Your task to perform on an android device: What is the news today? Image 0: 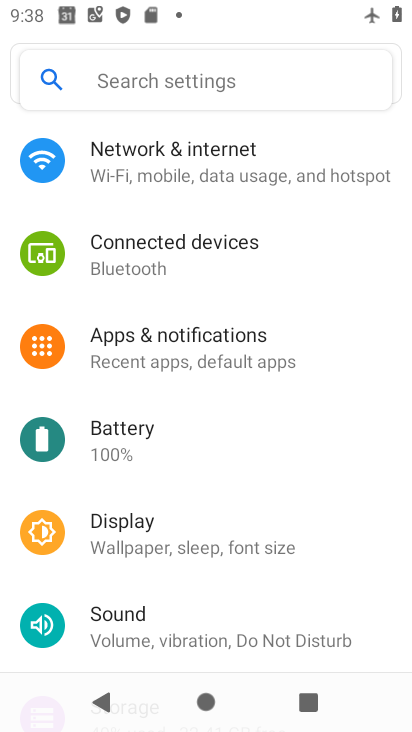
Step 0: drag from (245, 584) to (258, 382)
Your task to perform on an android device: What is the news today? Image 1: 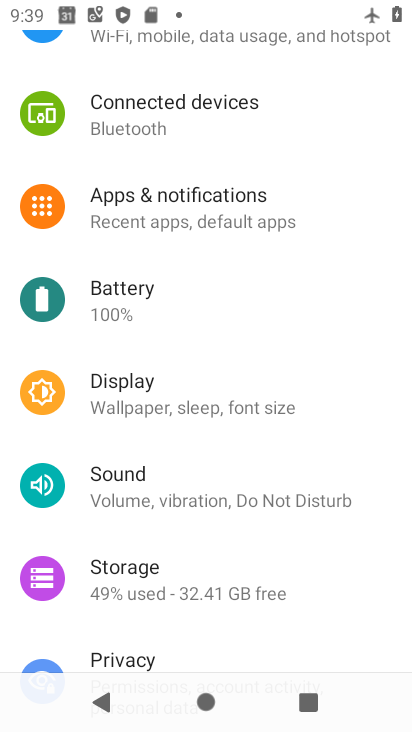
Step 1: press home button
Your task to perform on an android device: What is the news today? Image 2: 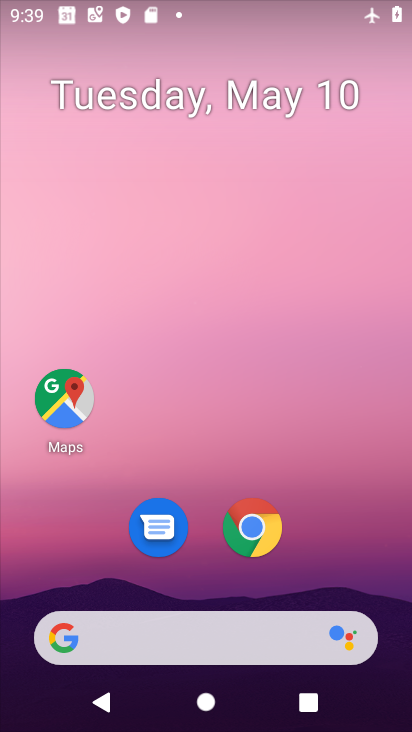
Step 2: drag from (309, 490) to (258, 618)
Your task to perform on an android device: What is the news today? Image 3: 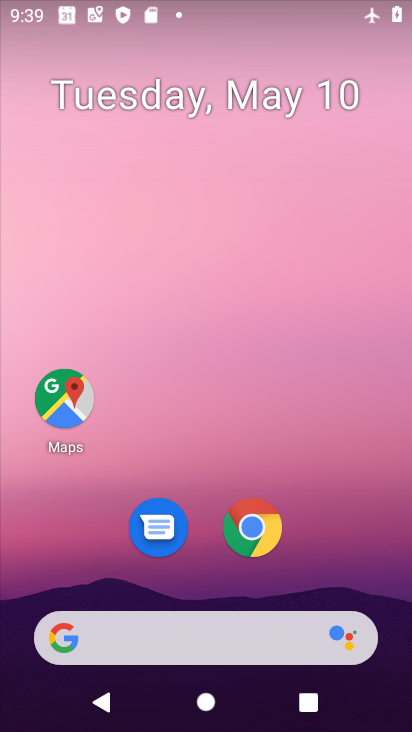
Step 3: click (219, 633)
Your task to perform on an android device: What is the news today? Image 4: 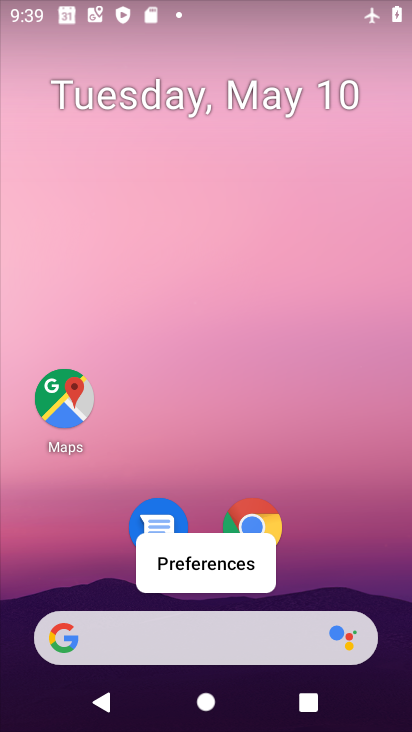
Step 4: click (197, 643)
Your task to perform on an android device: What is the news today? Image 5: 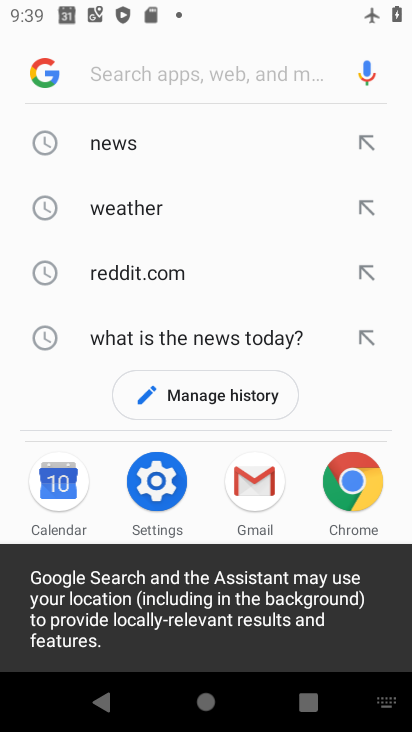
Step 5: click (159, 159)
Your task to perform on an android device: What is the news today? Image 6: 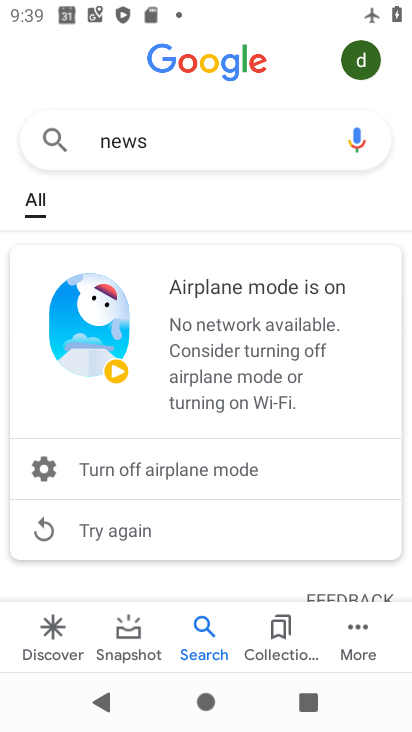
Step 6: task complete